Your task to perform on an android device: Open display settings Image 0: 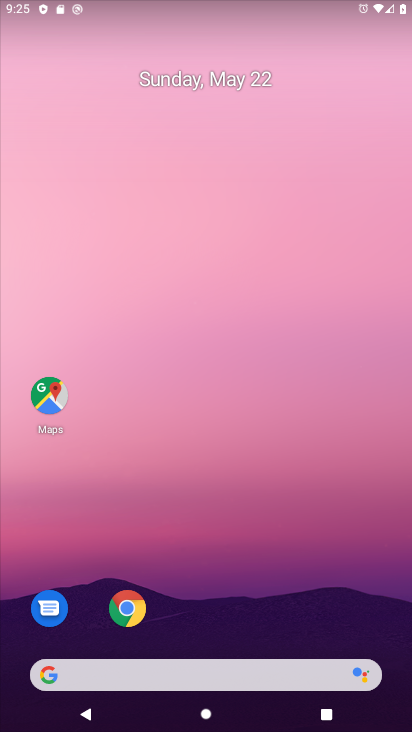
Step 0: drag from (246, 527) to (365, 725)
Your task to perform on an android device: Open display settings Image 1: 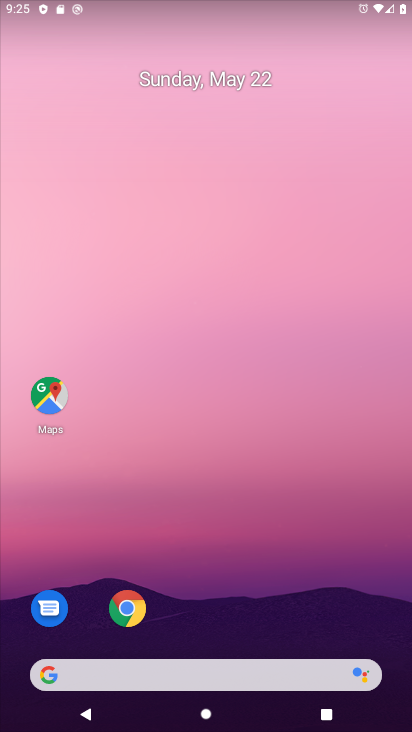
Step 1: drag from (400, 588) to (322, 38)
Your task to perform on an android device: Open display settings Image 2: 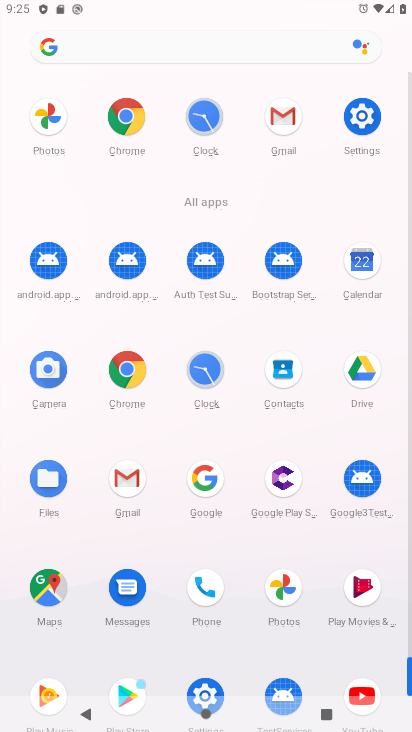
Step 2: click (362, 115)
Your task to perform on an android device: Open display settings Image 3: 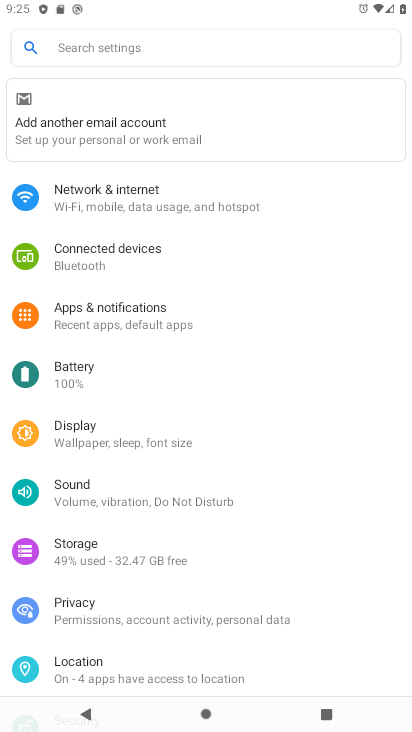
Step 3: click (132, 443)
Your task to perform on an android device: Open display settings Image 4: 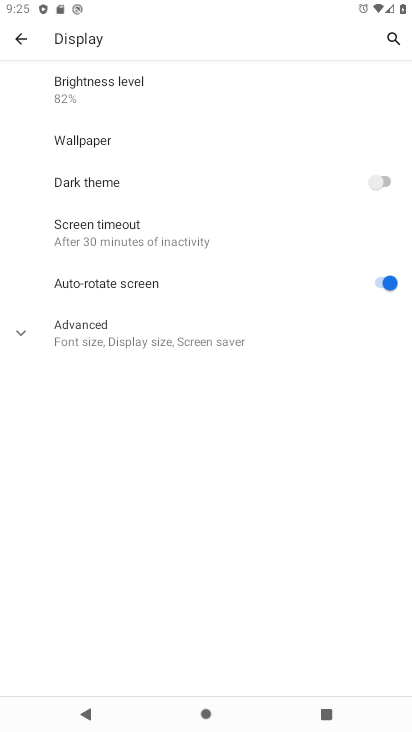
Step 4: click (16, 333)
Your task to perform on an android device: Open display settings Image 5: 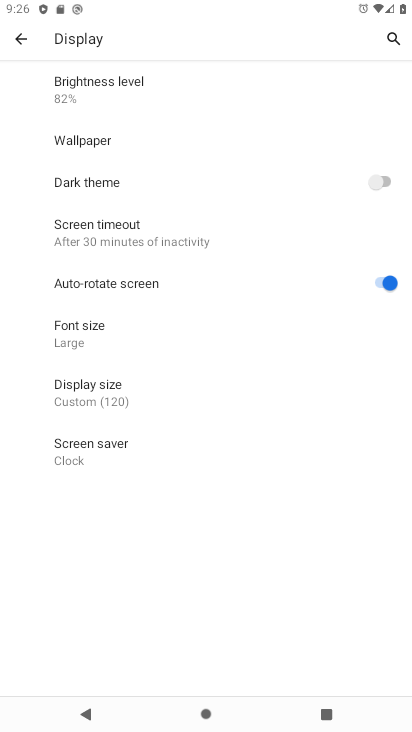
Step 5: task complete